Your task to perform on an android device: Open Chrome and go to the settings page Image 0: 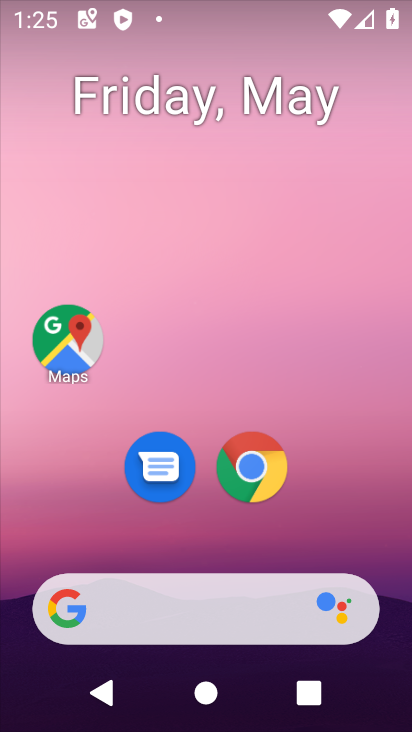
Step 0: click (253, 461)
Your task to perform on an android device: Open Chrome and go to the settings page Image 1: 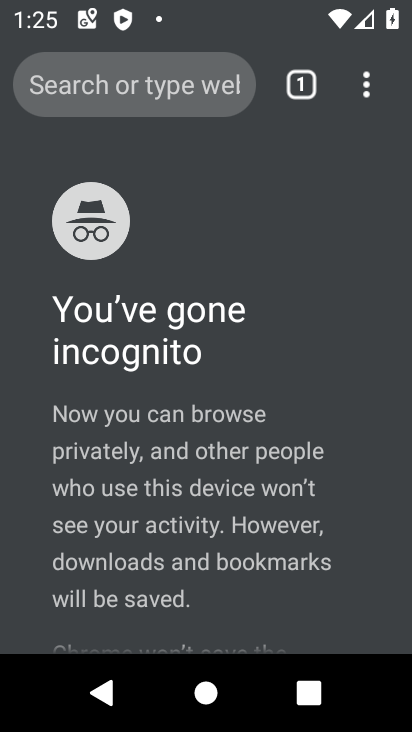
Step 1: click (367, 87)
Your task to perform on an android device: Open Chrome and go to the settings page Image 2: 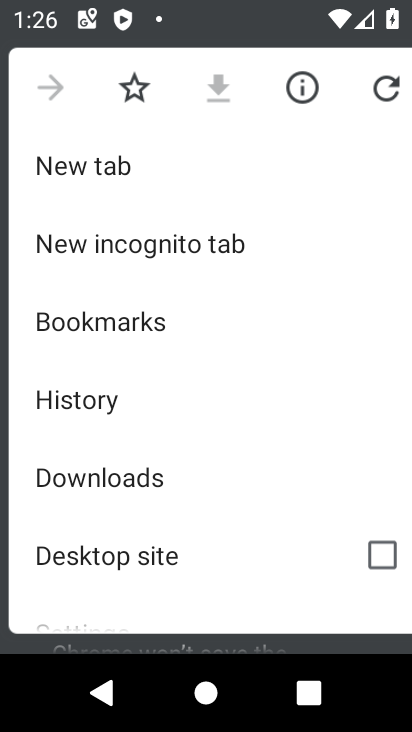
Step 2: drag from (92, 520) to (122, 229)
Your task to perform on an android device: Open Chrome and go to the settings page Image 3: 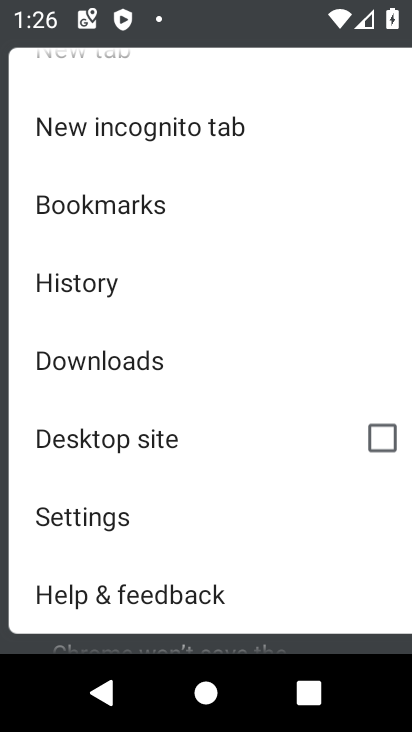
Step 3: click (83, 513)
Your task to perform on an android device: Open Chrome and go to the settings page Image 4: 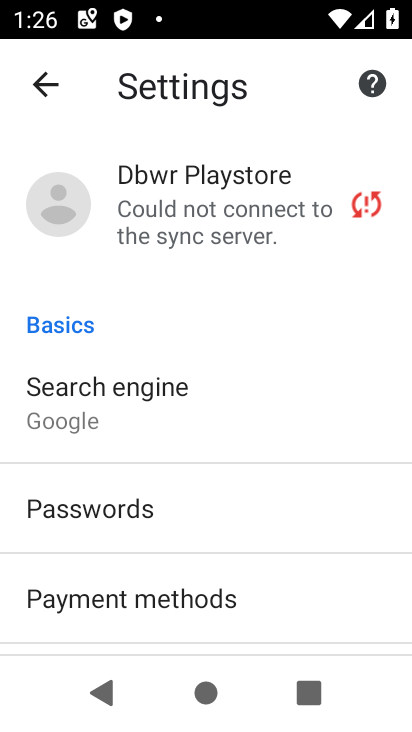
Step 4: task complete